Your task to perform on an android device: open a bookmark in the chrome app Image 0: 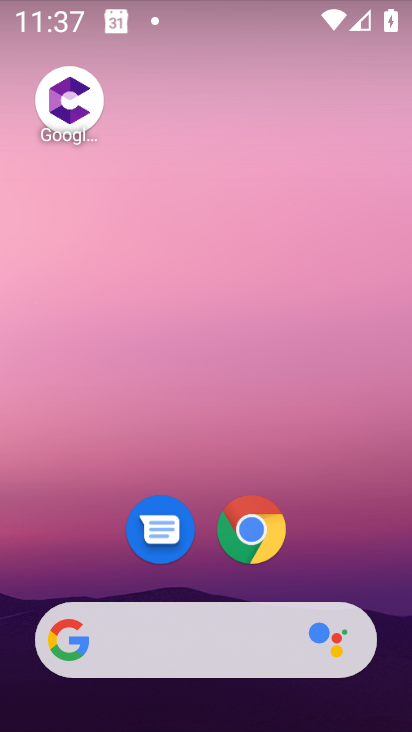
Step 0: drag from (231, 529) to (294, 71)
Your task to perform on an android device: open a bookmark in the chrome app Image 1: 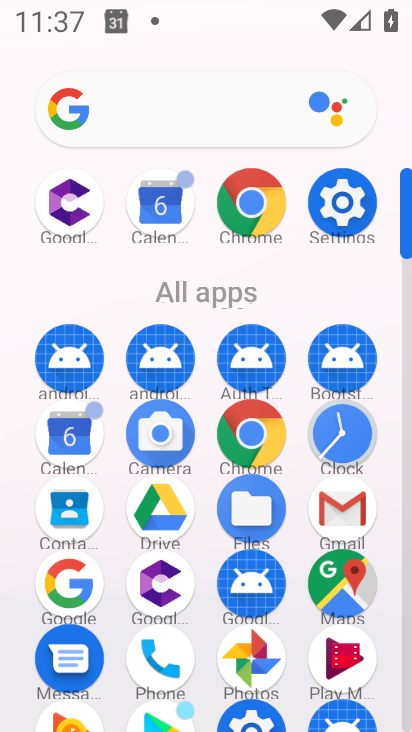
Step 1: click (251, 207)
Your task to perform on an android device: open a bookmark in the chrome app Image 2: 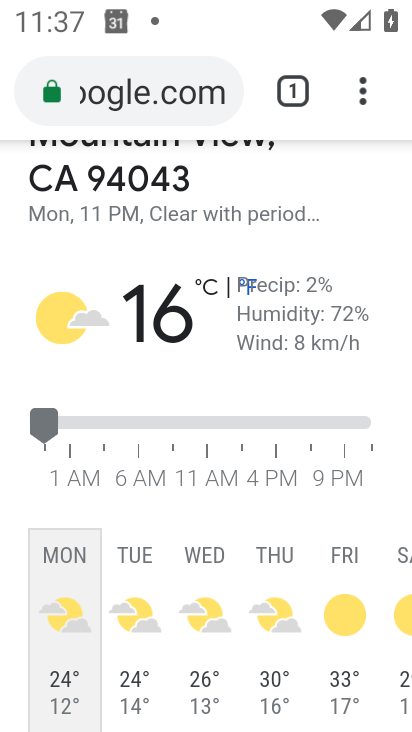
Step 2: click (362, 91)
Your task to perform on an android device: open a bookmark in the chrome app Image 3: 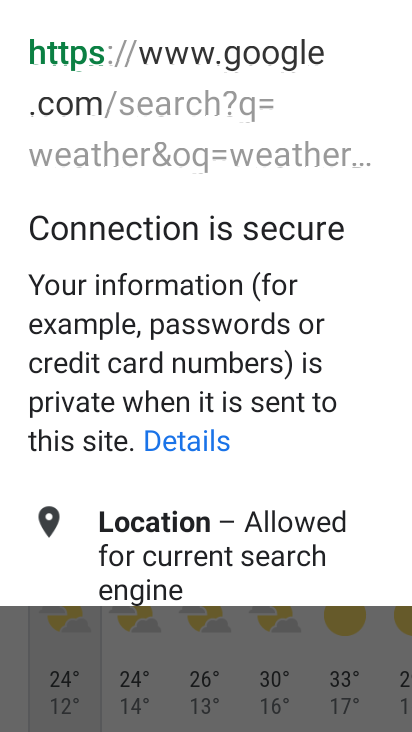
Step 3: press back button
Your task to perform on an android device: open a bookmark in the chrome app Image 4: 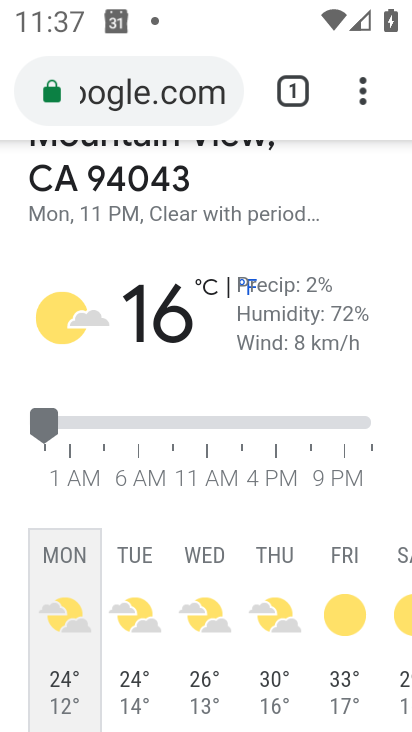
Step 4: click (366, 90)
Your task to perform on an android device: open a bookmark in the chrome app Image 5: 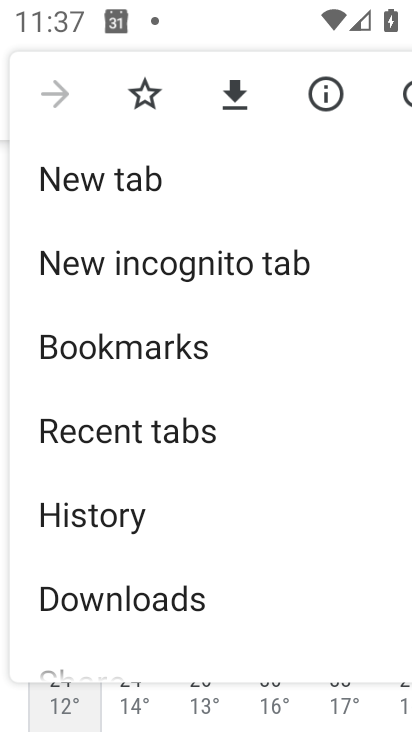
Step 5: click (178, 329)
Your task to perform on an android device: open a bookmark in the chrome app Image 6: 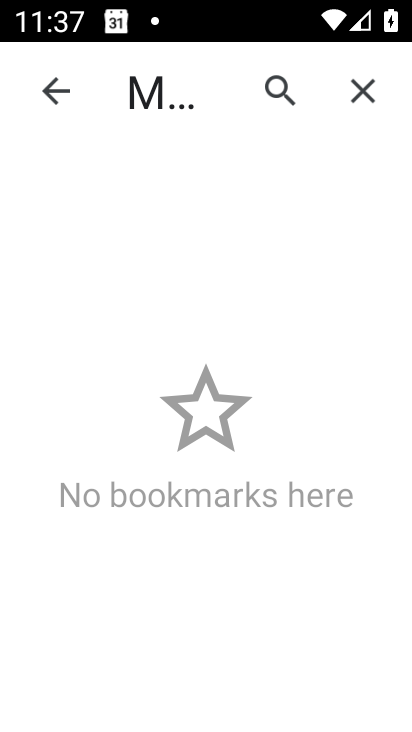
Step 6: task complete